Your task to perform on an android device: Open settings on Google Maps Image 0: 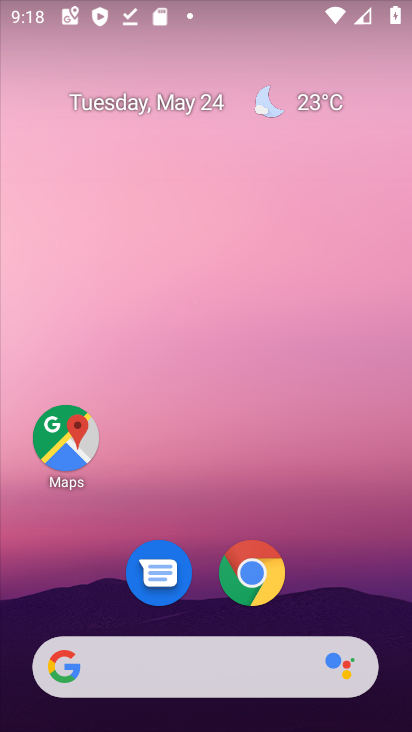
Step 0: drag from (363, 634) to (257, 159)
Your task to perform on an android device: Open settings on Google Maps Image 1: 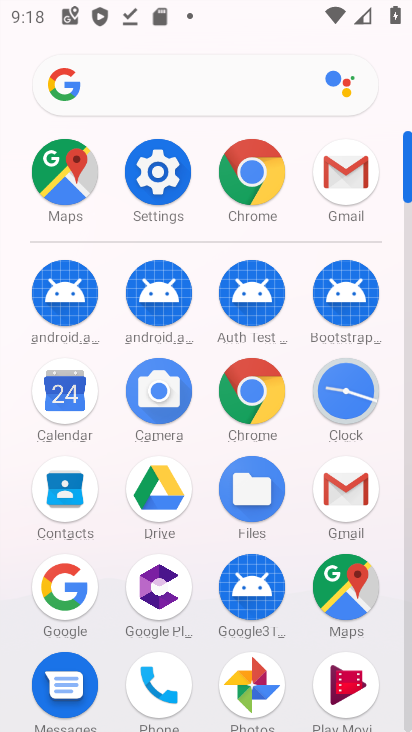
Step 1: click (344, 597)
Your task to perform on an android device: Open settings on Google Maps Image 2: 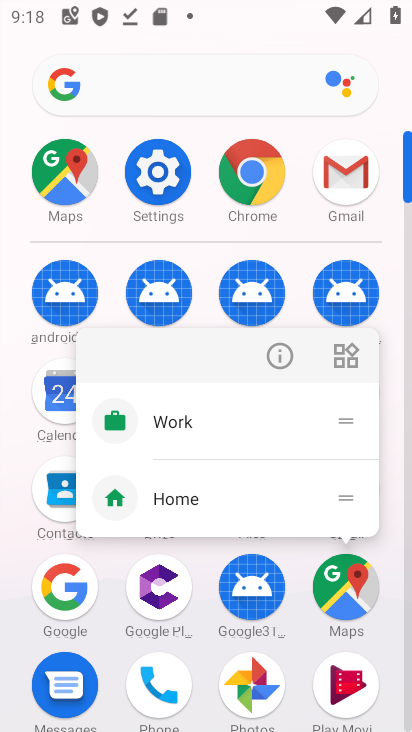
Step 2: click (359, 588)
Your task to perform on an android device: Open settings on Google Maps Image 3: 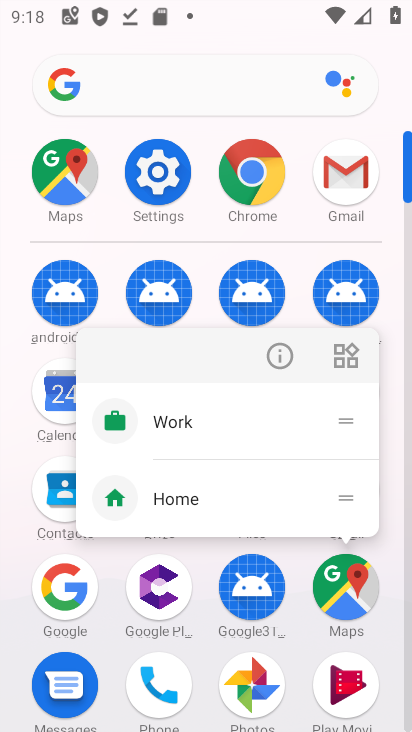
Step 3: click (348, 598)
Your task to perform on an android device: Open settings on Google Maps Image 4: 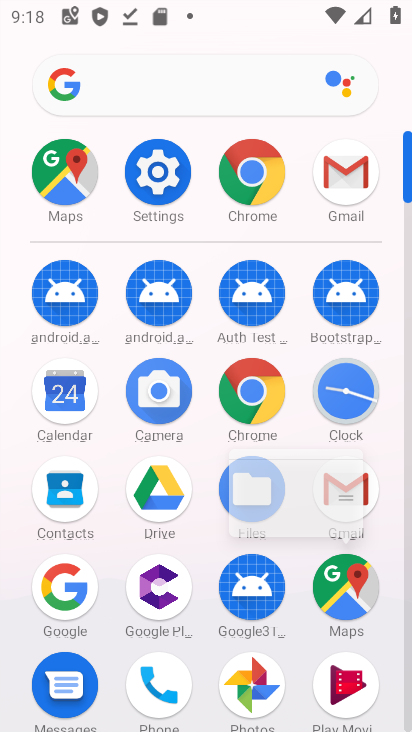
Step 4: click (348, 598)
Your task to perform on an android device: Open settings on Google Maps Image 5: 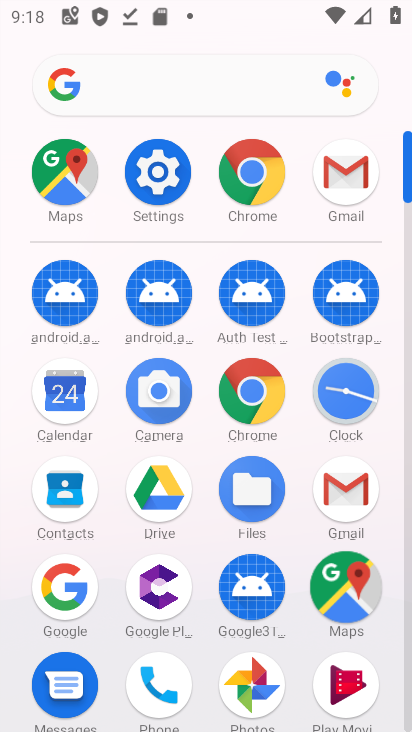
Step 5: click (348, 598)
Your task to perform on an android device: Open settings on Google Maps Image 6: 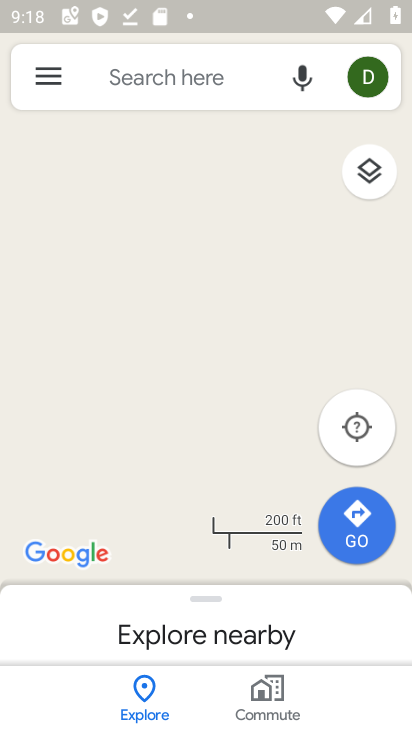
Step 6: click (360, 576)
Your task to perform on an android device: Open settings on Google Maps Image 7: 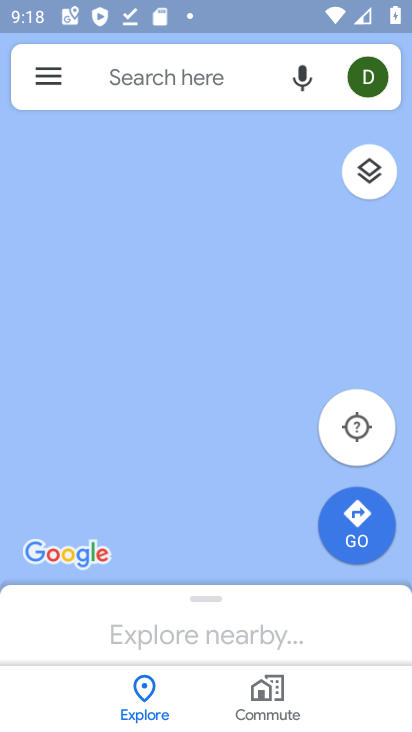
Step 7: click (42, 75)
Your task to perform on an android device: Open settings on Google Maps Image 8: 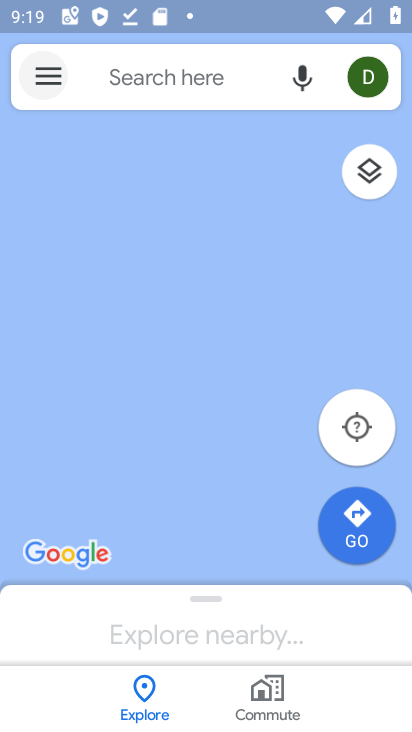
Step 8: click (42, 75)
Your task to perform on an android device: Open settings on Google Maps Image 9: 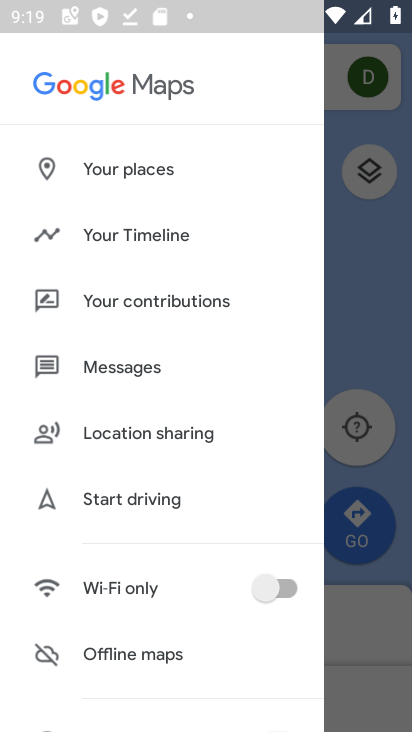
Step 9: click (129, 238)
Your task to perform on an android device: Open settings on Google Maps Image 10: 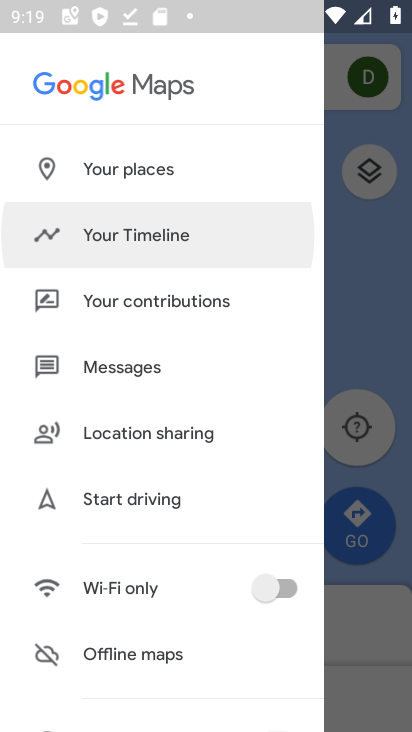
Step 10: click (133, 234)
Your task to perform on an android device: Open settings on Google Maps Image 11: 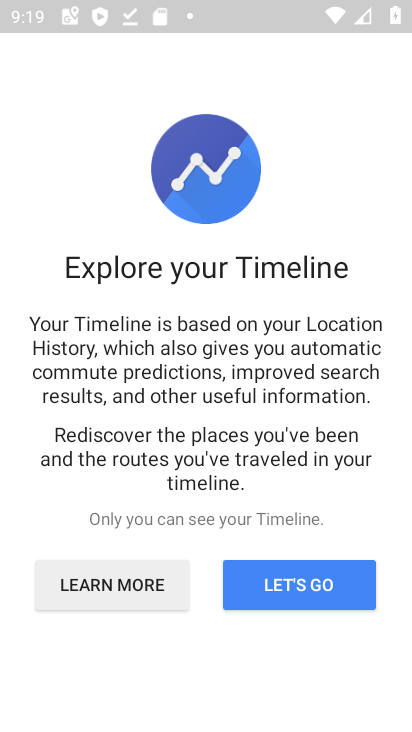
Step 11: task complete